Your task to perform on an android device: turn smart compose on in the gmail app Image 0: 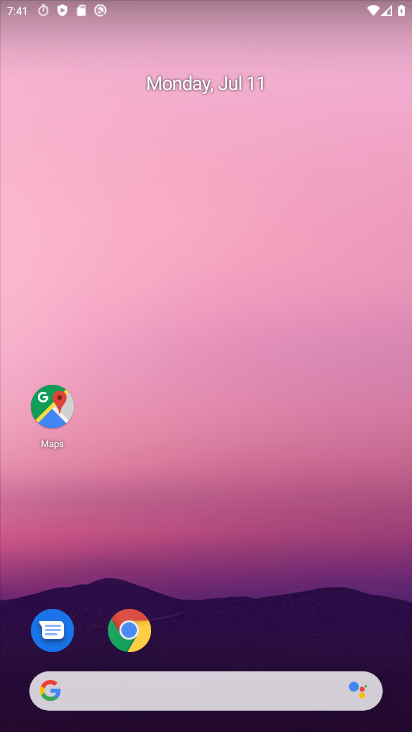
Step 0: drag from (188, 660) to (314, 190)
Your task to perform on an android device: turn smart compose on in the gmail app Image 1: 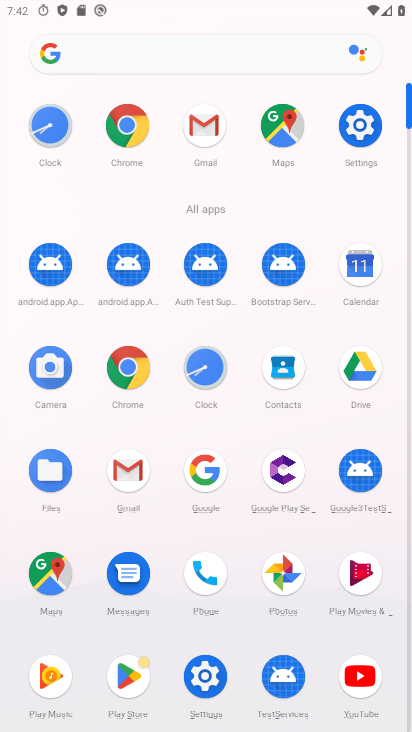
Step 1: click (207, 128)
Your task to perform on an android device: turn smart compose on in the gmail app Image 2: 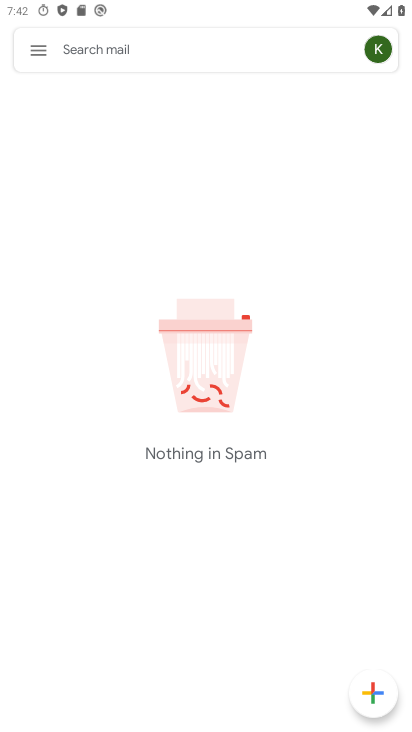
Step 2: click (38, 48)
Your task to perform on an android device: turn smart compose on in the gmail app Image 3: 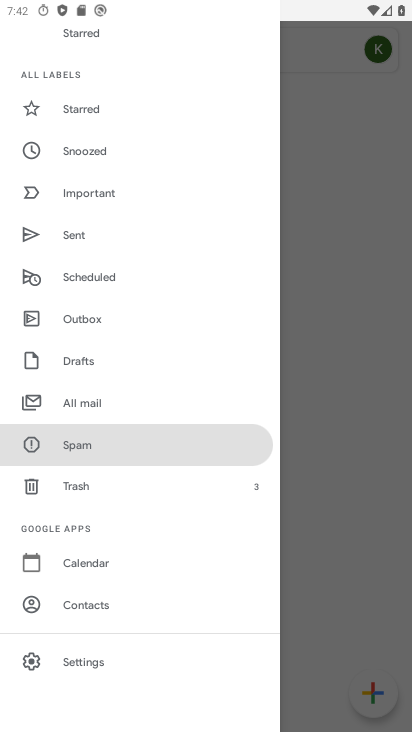
Step 3: click (86, 662)
Your task to perform on an android device: turn smart compose on in the gmail app Image 4: 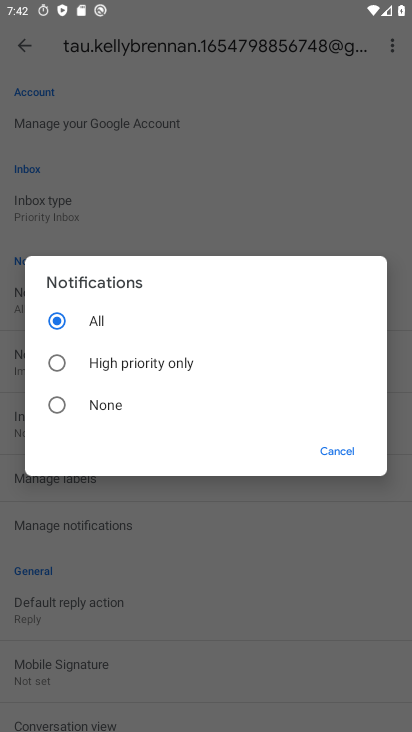
Step 4: click (347, 457)
Your task to perform on an android device: turn smart compose on in the gmail app Image 5: 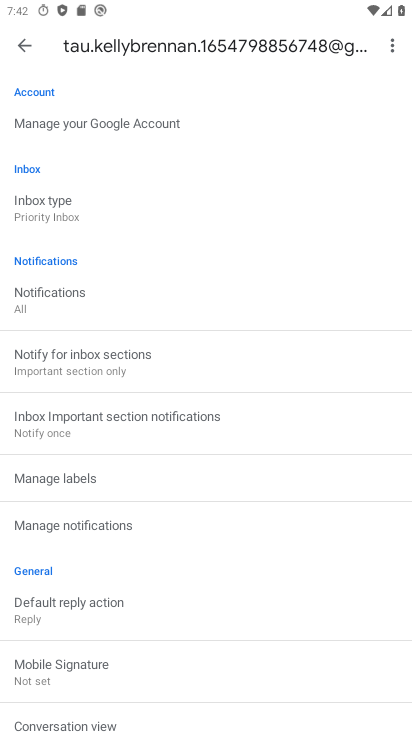
Step 5: task complete